Your task to perform on an android device: Go to accessibility settings Image 0: 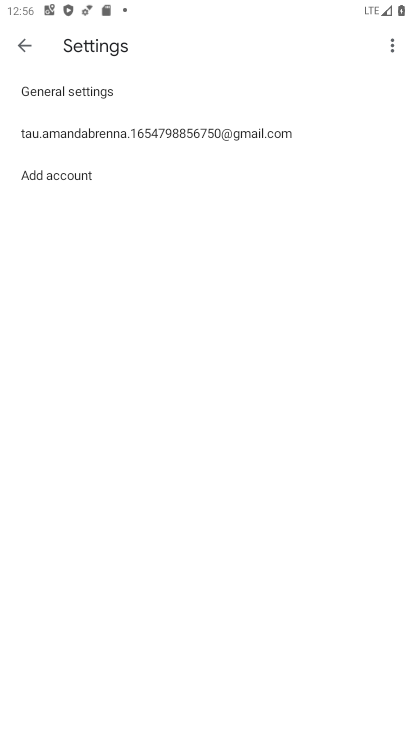
Step 0: press home button
Your task to perform on an android device: Go to accessibility settings Image 1: 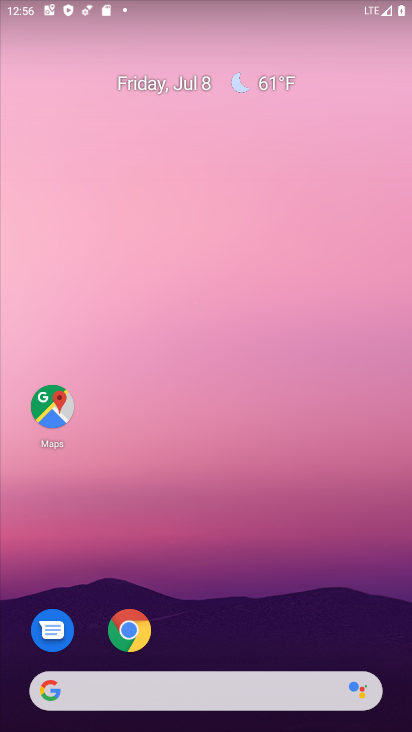
Step 1: drag from (393, 677) to (110, 14)
Your task to perform on an android device: Go to accessibility settings Image 2: 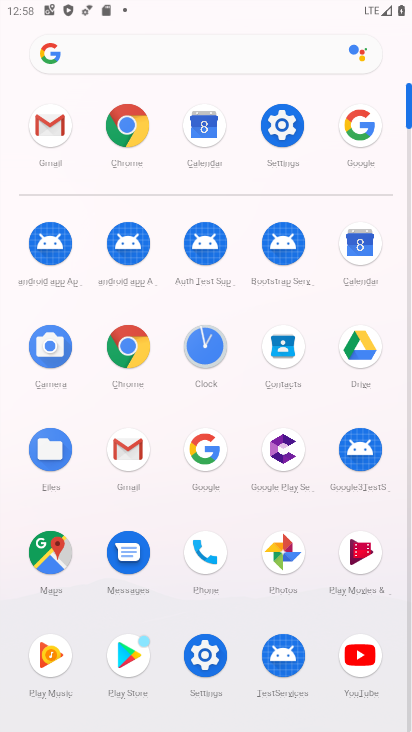
Step 2: click (209, 662)
Your task to perform on an android device: Go to accessibility settings Image 3: 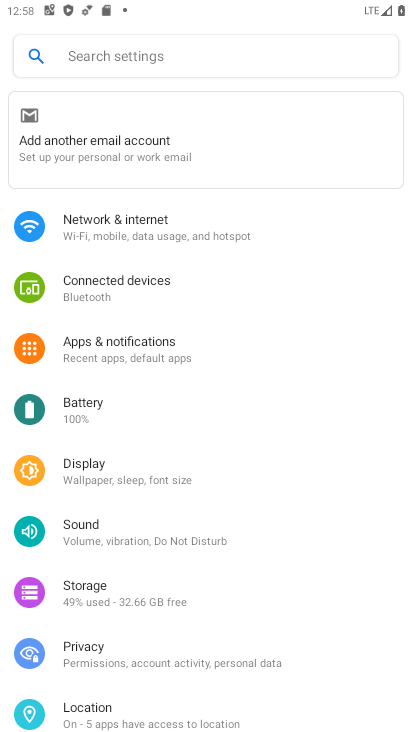
Step 3: drag from (118, 687) to (137, 182)
Your task to perform on an android device: Go to accessibility settings Image 4: 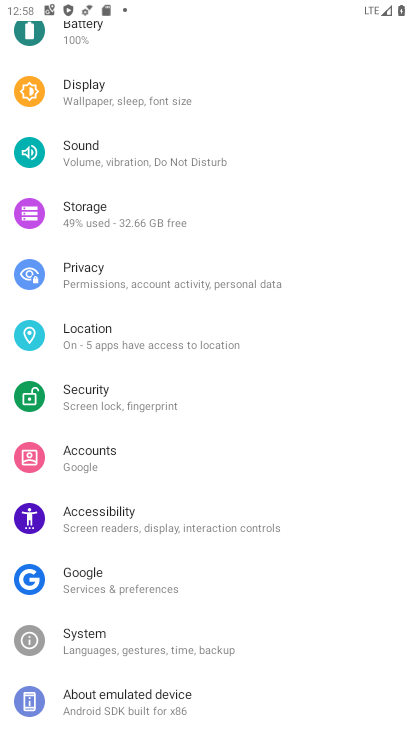
Step 4: click (103, 525)
Your task to perform on an android device: Go to accessibility settings Image 5: 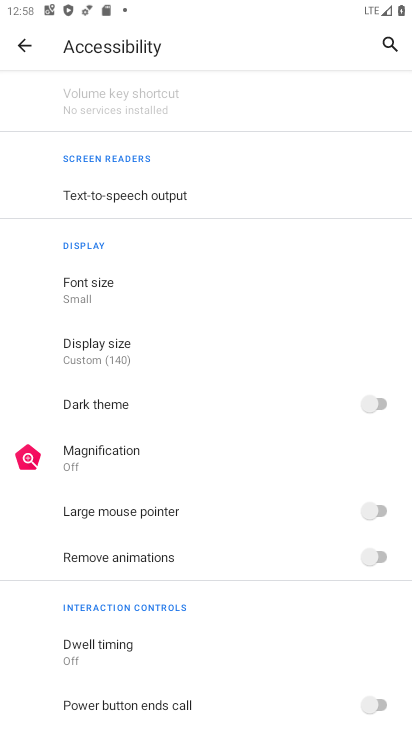
Step 5: task complete